Your task to perform on an android device: open chrome privacy settings Image 0: 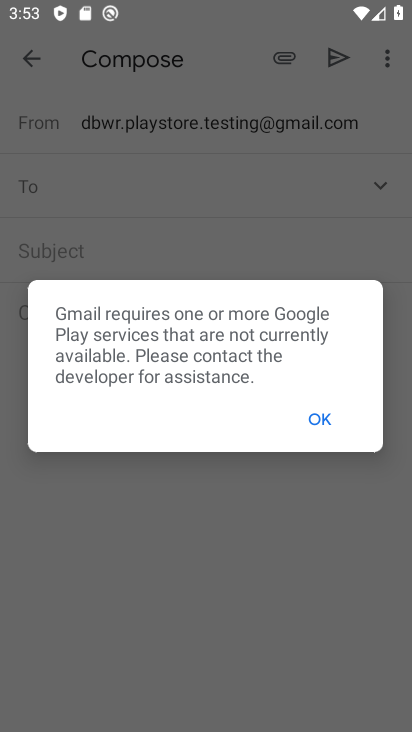
Step 0: press home button
Your task to perform on an android device: open chrome privacy settings Image 1: 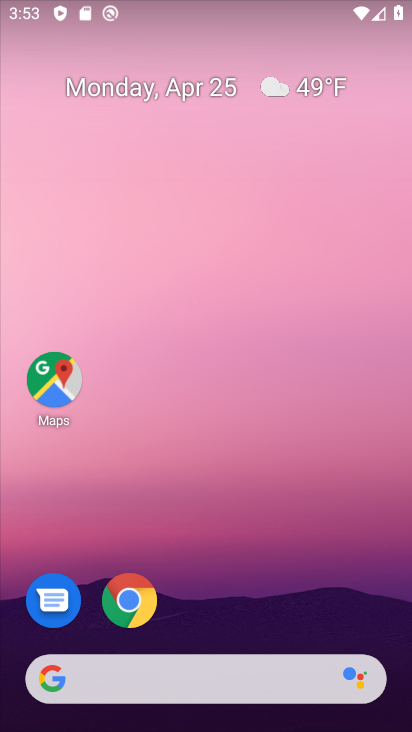
Step 1: click (136, 599)
Your task to perform on an android device: open chrome privacy settings Image 2: 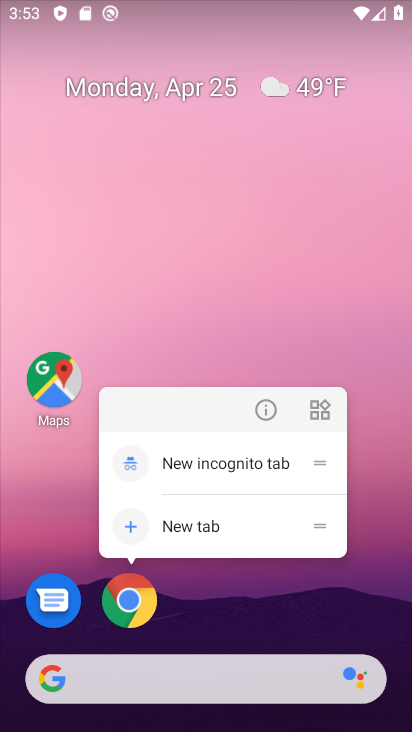
Step 2: click (136, 599)
Your task to perform on an android device: open chrome privacy settings Image 3: 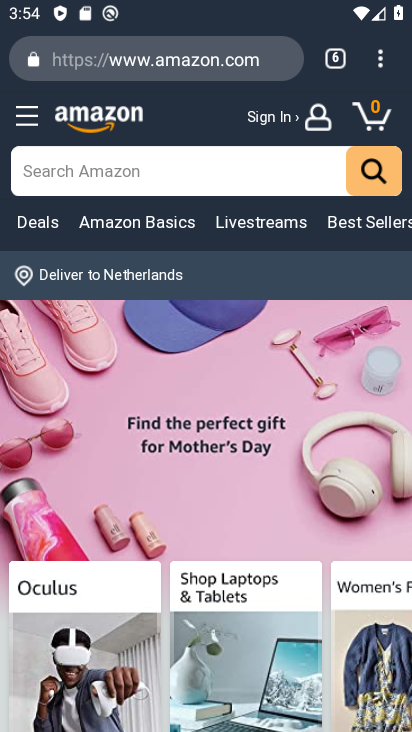
Step 3: click (378, 64)
Your task to perform on an android device: open chrome privacy settings Image 4: 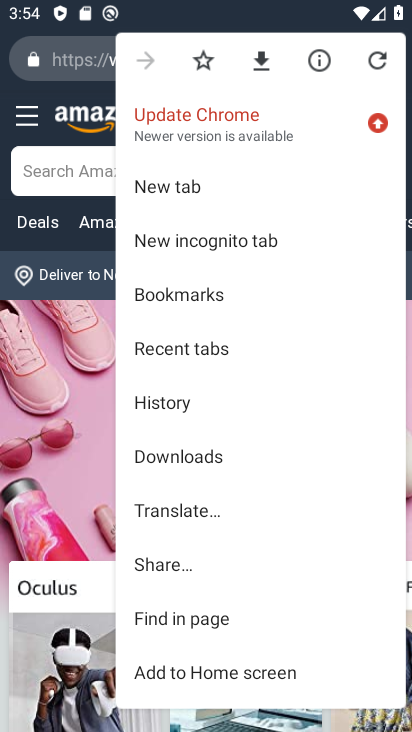
Step 4: drag from (278, 583) to (272, 305)
Your task to perform on an android device: open chrome privacy settings Image 5: 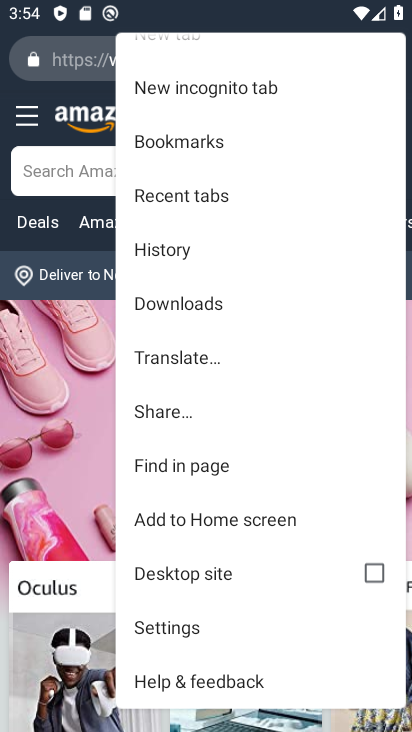
Step 5: click (198, 615)
Your task to perform on an android device: open chrome privacy settings Image 6: 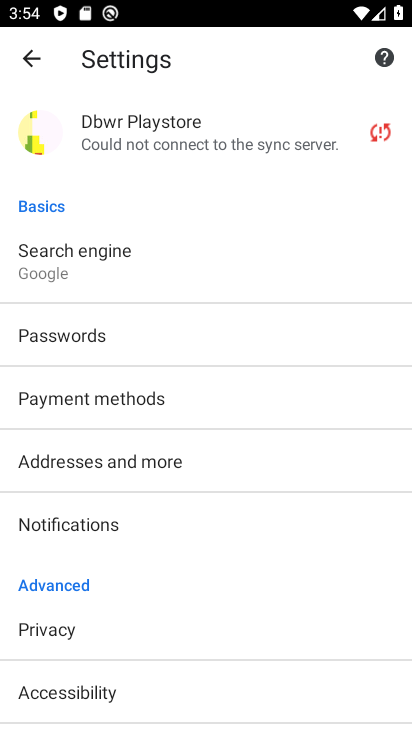
Step 6: click (166, 632)
Your task to perform on an android device: open chrome privacy settings Image 7: 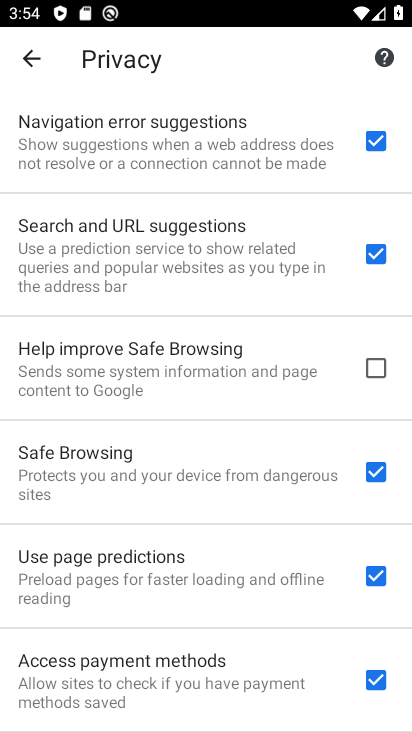
Step 7: task complete